Your task to perform on an android device: Open Yahoo.com Image 0: 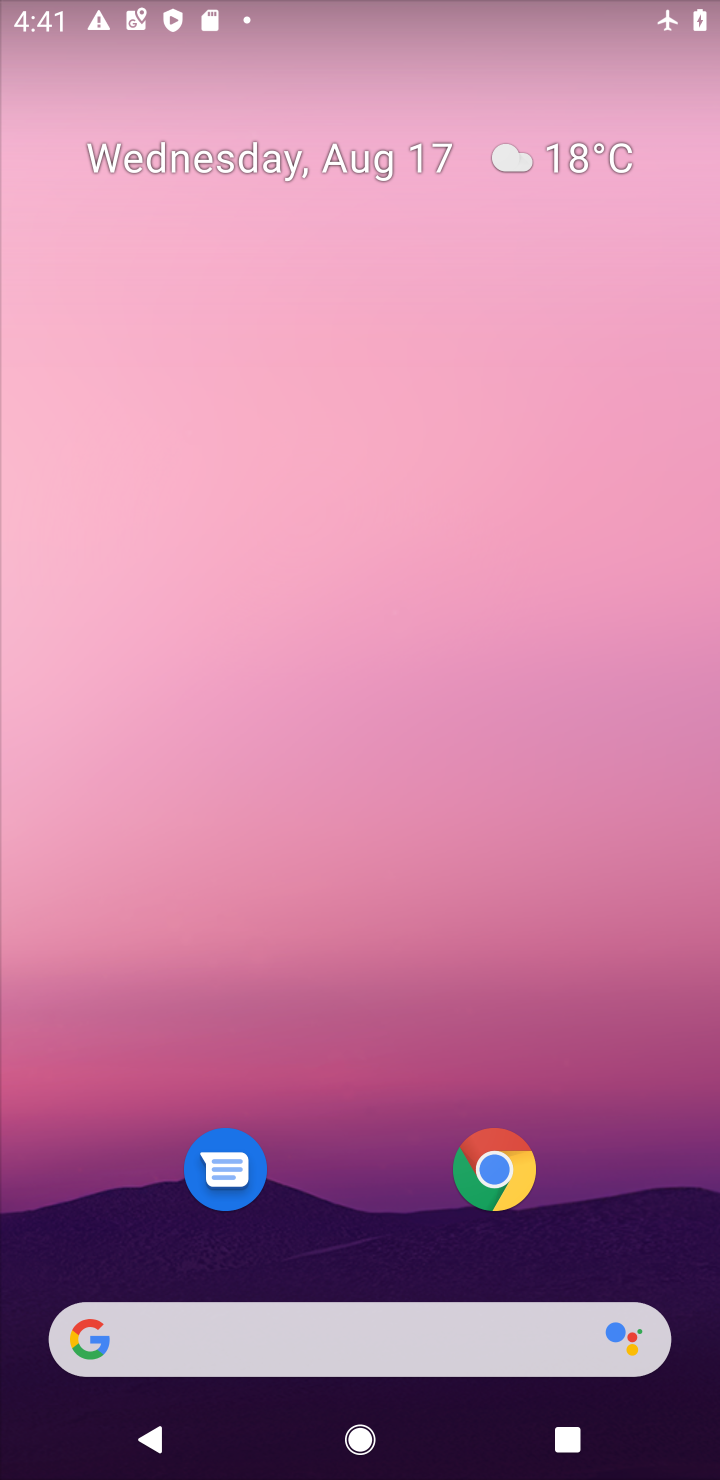
Step 0: drag from (365, 1119) to (499, 70)
Your task to perform on an android device: Open Yahoo.com Image 1: 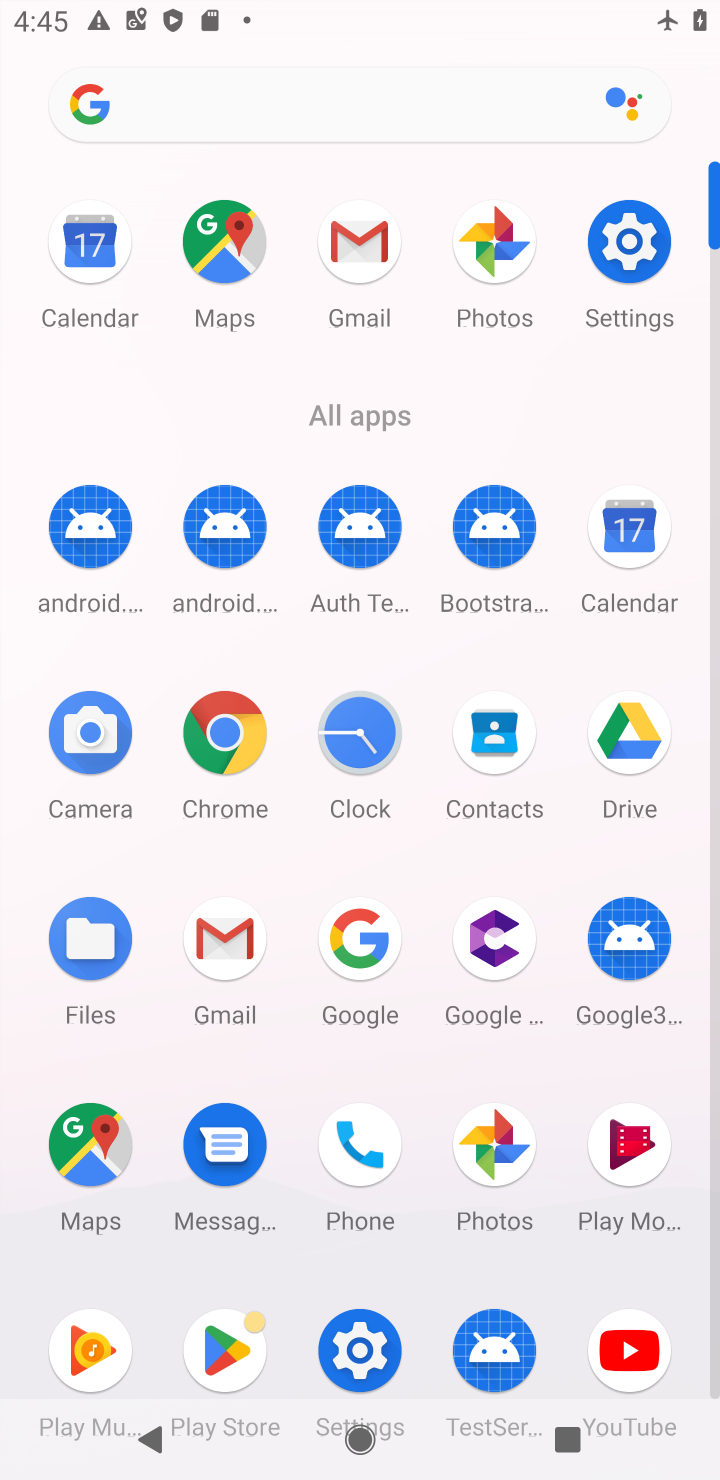
Step 1: click (223, 757)
Your task to perform on an android device: Open Yahoo.com Image 2: 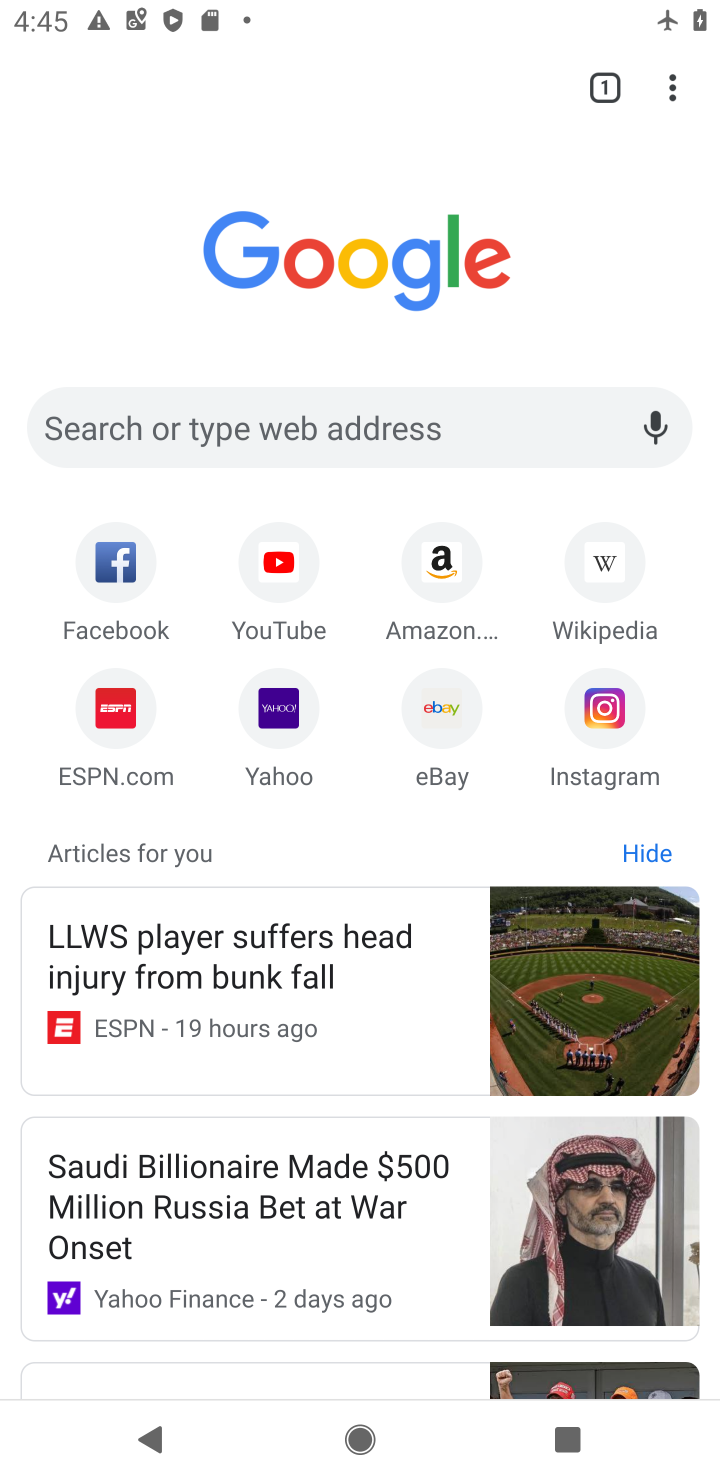
Step 2: click (344, 432)
Your task to perform on an android device: Open Yahoo.com Image 3: 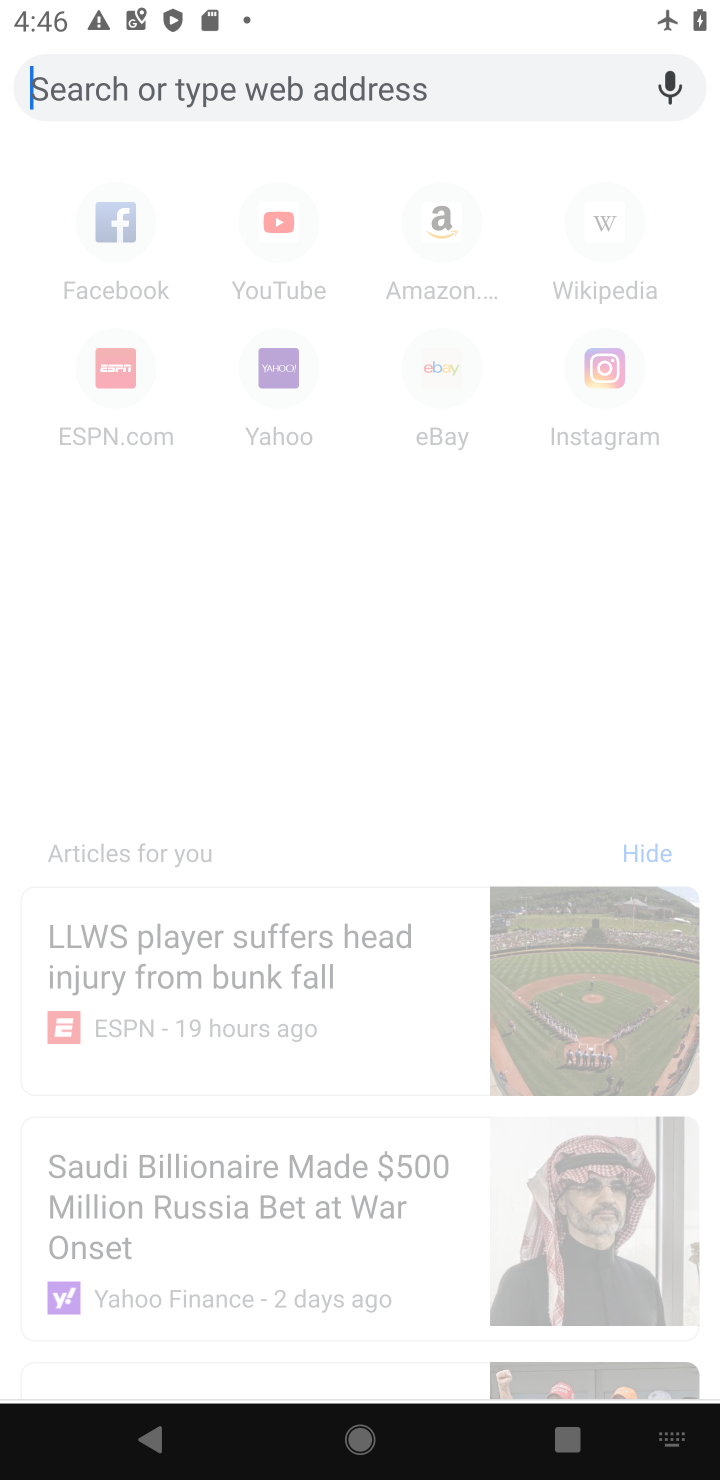
Step 3: press back button
Your task to perform on an android device: Open Yahoo.com Image 4: 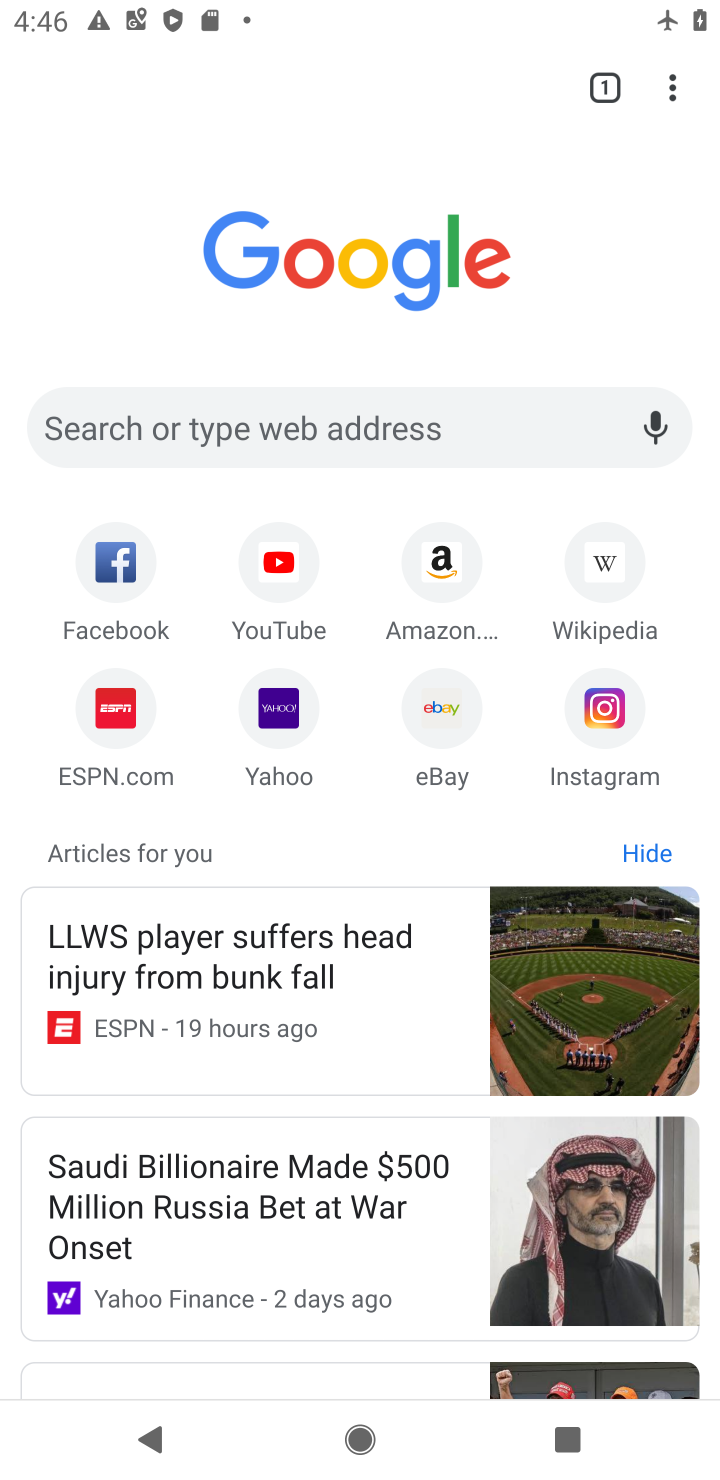
Step 4: click (282, 698)
Your task to perform on an android device: Open Yahoo.com Image 5: 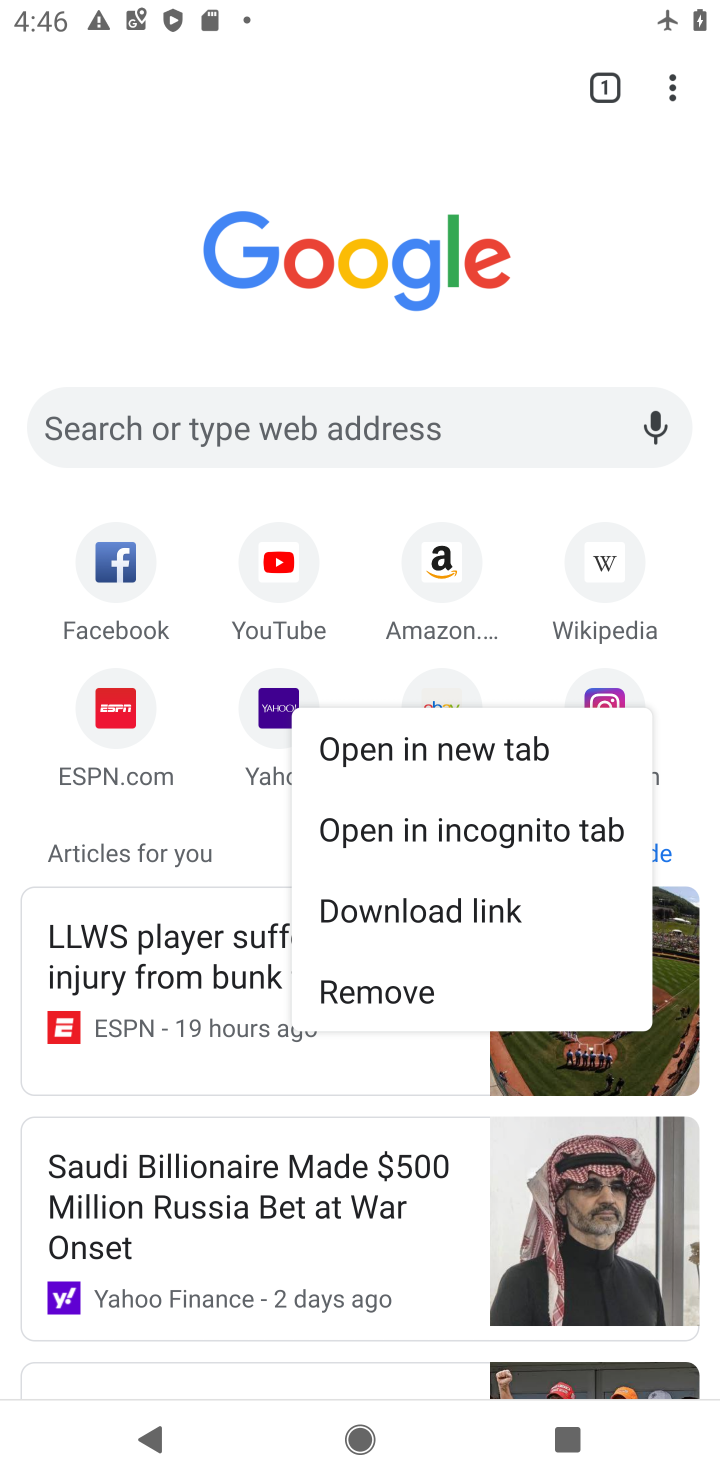
Step 5: click (282, 698)
Your task to perform on an android device: Open Yahoo.com Image 6: 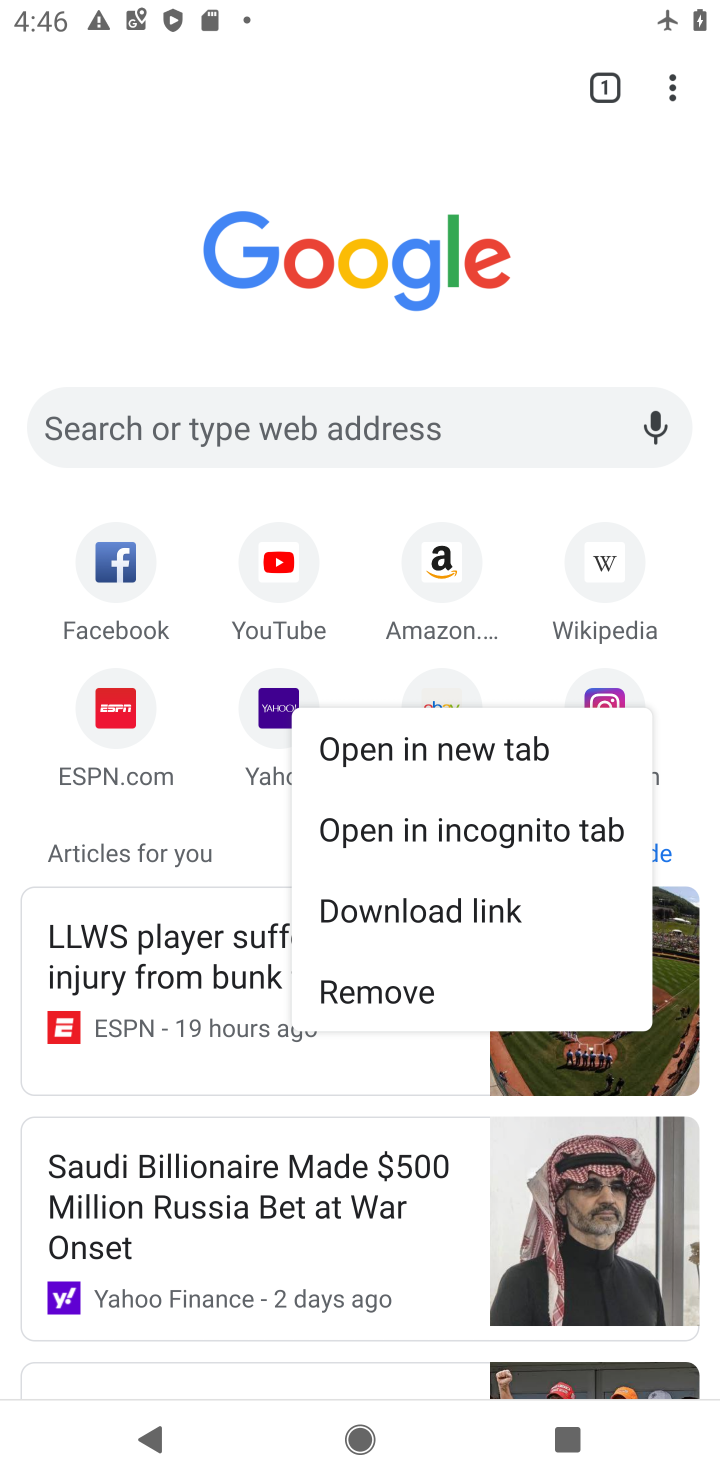
Step 6: click (273, 716)
Your task to perform on an android device: Open Yahoo.com Image 7: 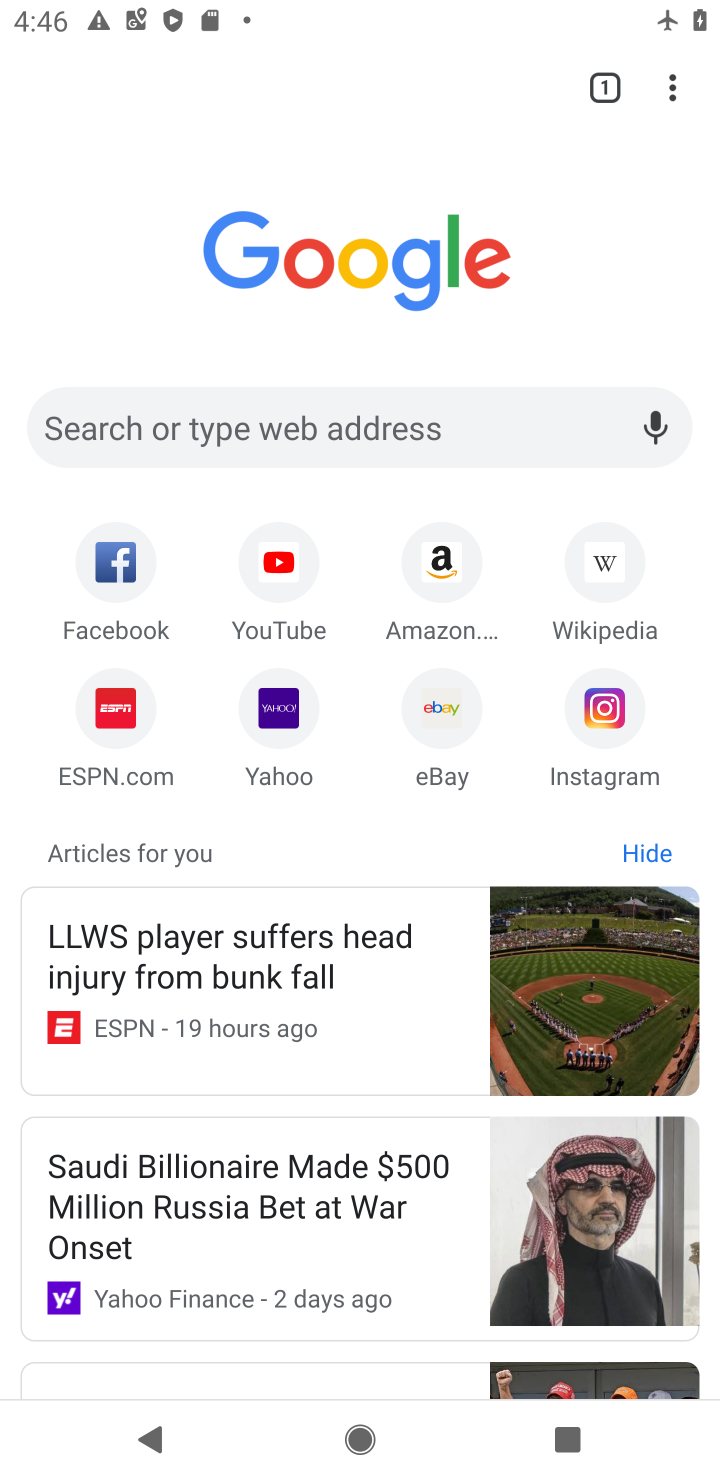
Step 7: click (287, 723)
Your task to perform on an android device: Open Yahoo.com Image 8: 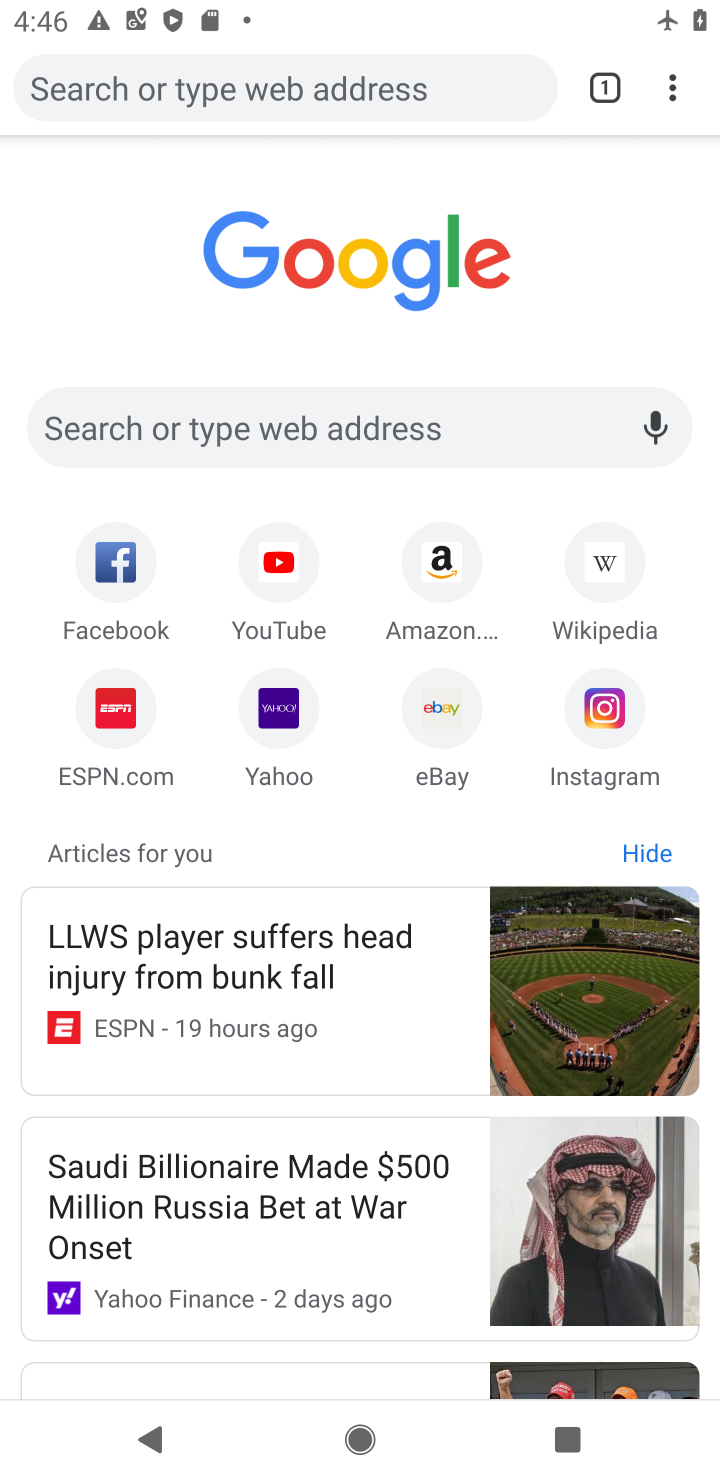
Step 8: click (278, 728)
Your task to perform on an android device: Open Yahoo.com Image 9: 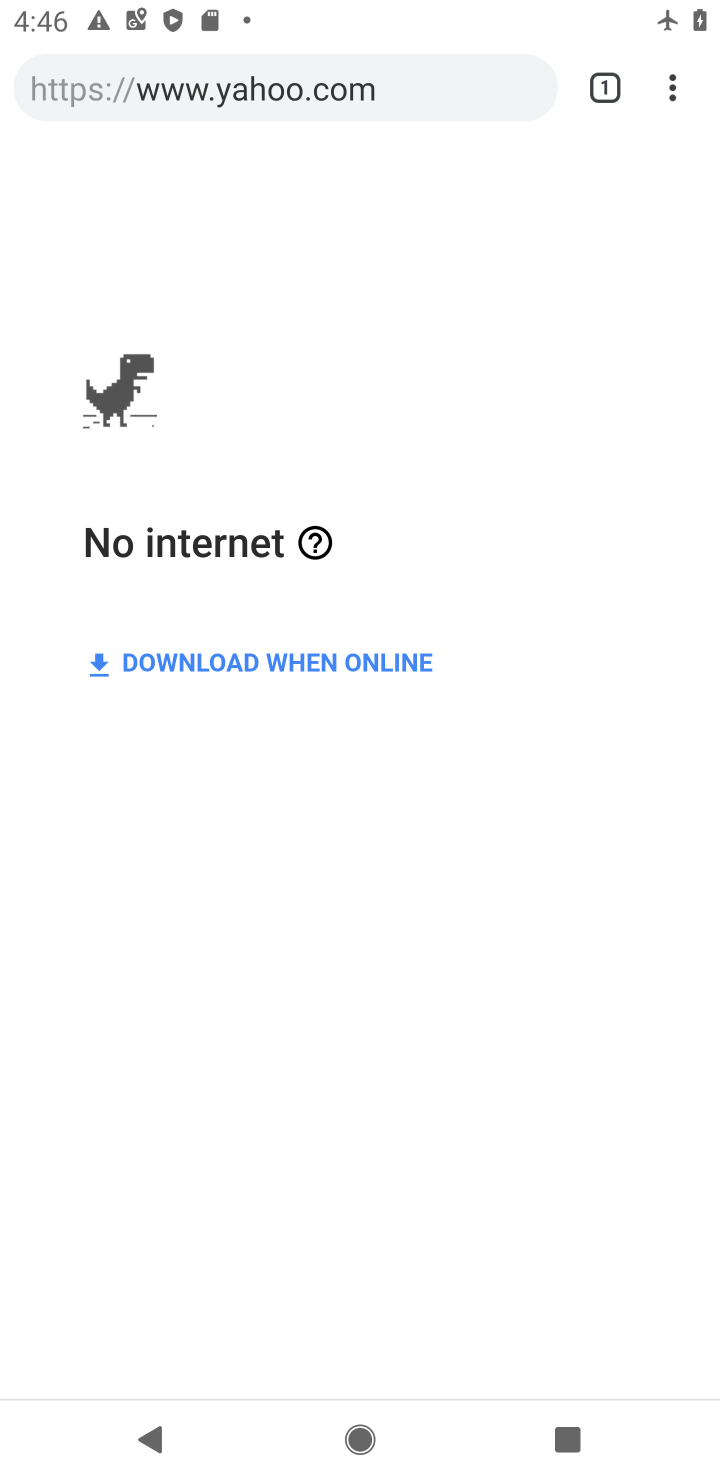
Step 9: task complete